Your task to perform on an android device: open app "NewsBreak: Local News & Alerts" (install if not already installed) Image 0: 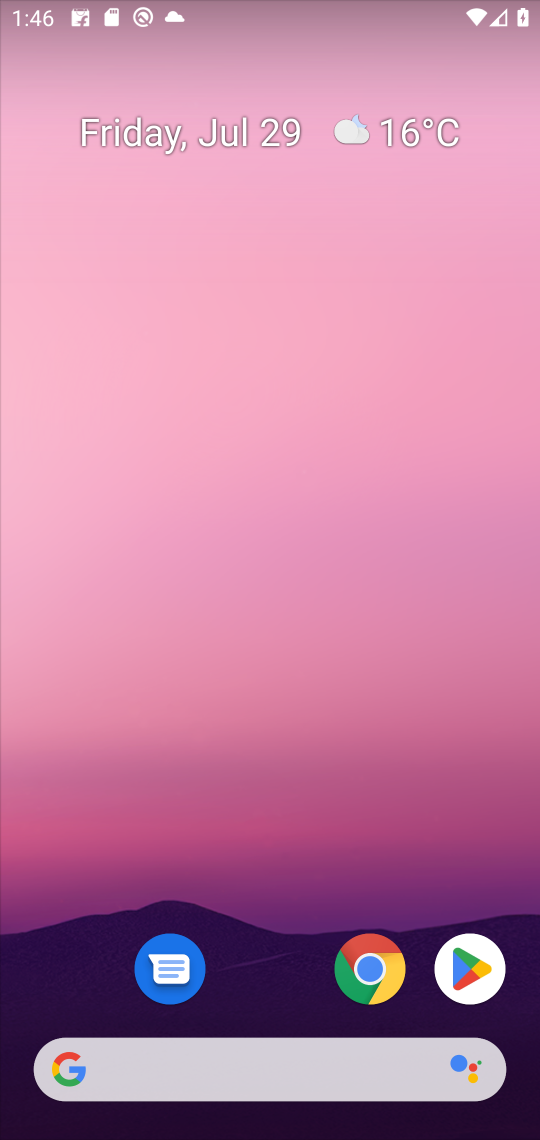
Step 0: press home button
Your task to perform on an android device: open app "NewsBreak: Local News & Alerts" (install if not already installed) Image 1: 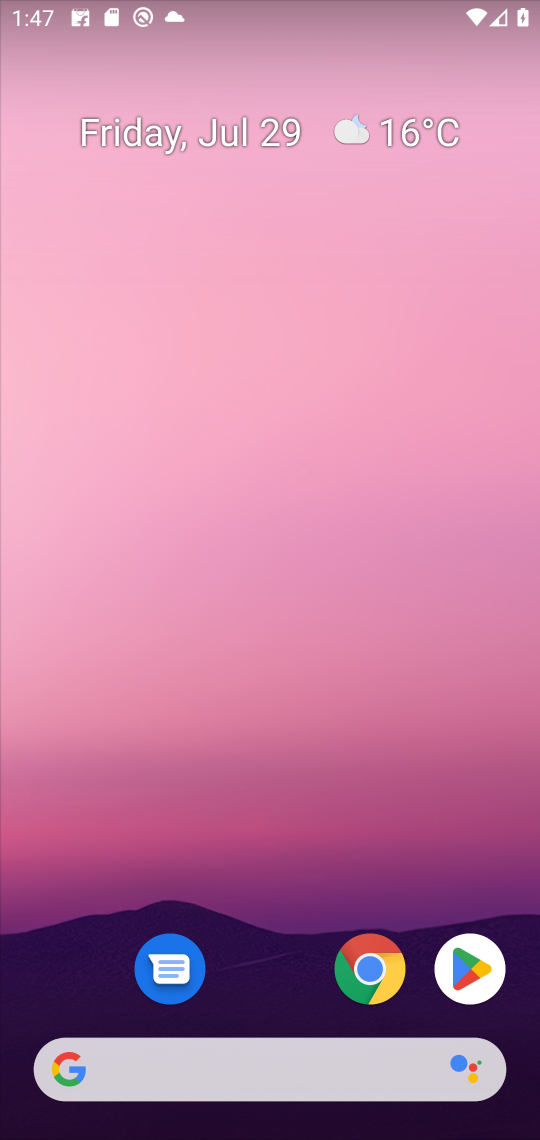
Step 1: click (462, 969)
Your task to perform on an android device: open app "NewsBreak: Local News & Alerts" (install if not already installed) Image 2: 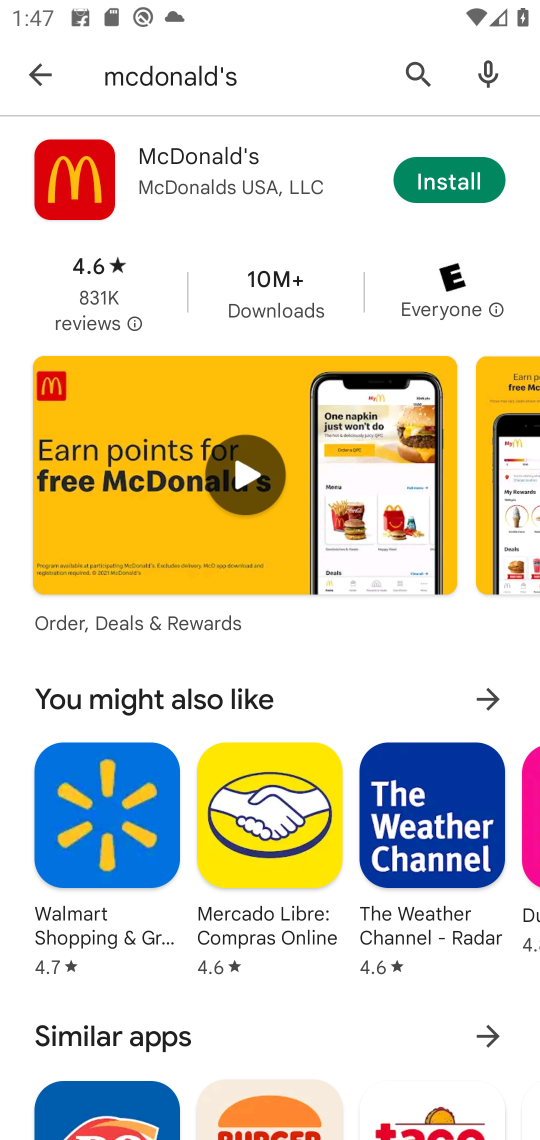
Step 2: click (411, 73)
Your task to perform on an android device: open app "NewsBreak: Local News & Alerts" (install if not already installed) Image 3: 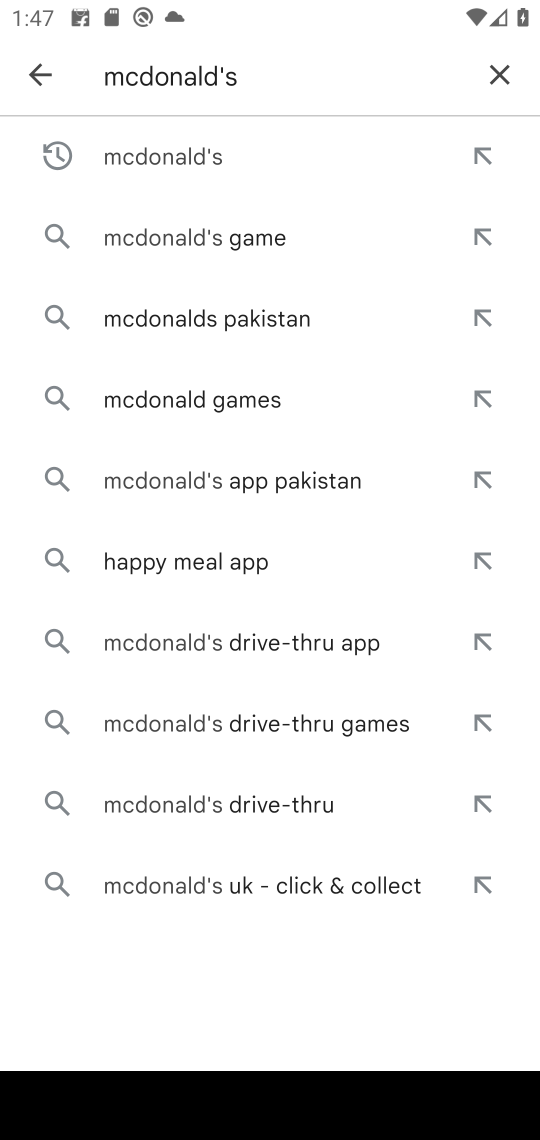
Step 3: click (493, 81)
Your task to perform on an android device: open app "NewsBreak: Local News & Alerts" (install if not already installed) Image 4: 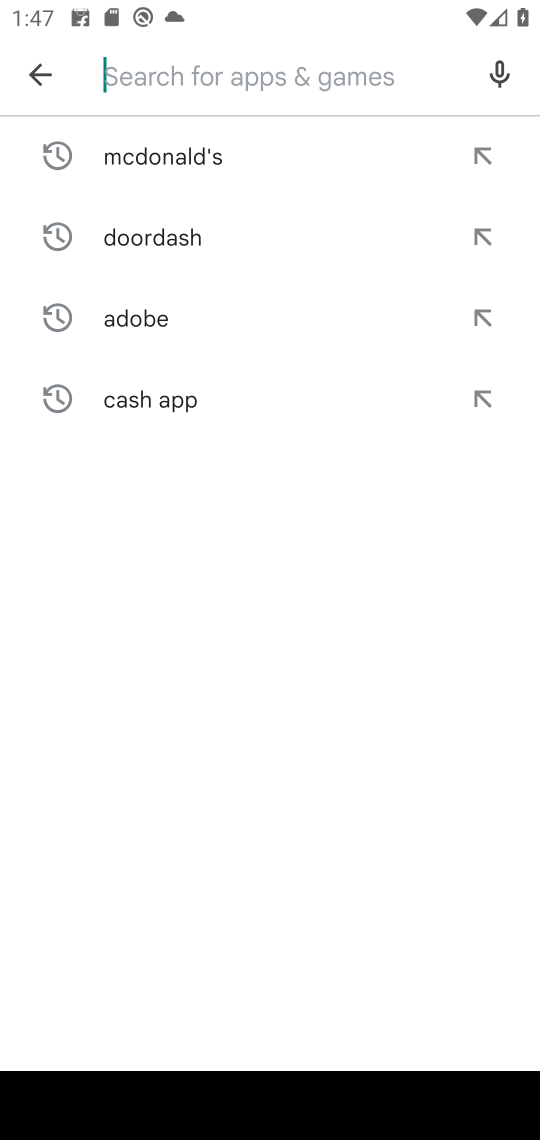
Step 4: type "newsbreak"
Your task to perform on an android device: open app "NewsBreak: Local News & Alerts" (install if not already installed) Image 5: 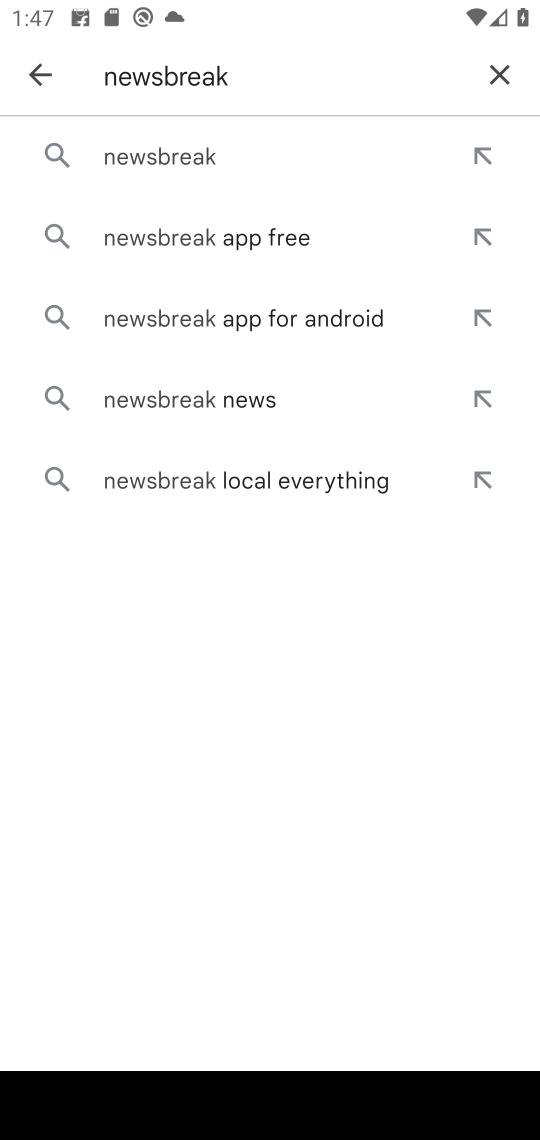
Step 5: click (211, 158)
Your task to perform on an android device: open app "NewsBreak: Local News & Alerts" (install if not already installed) Image 6: 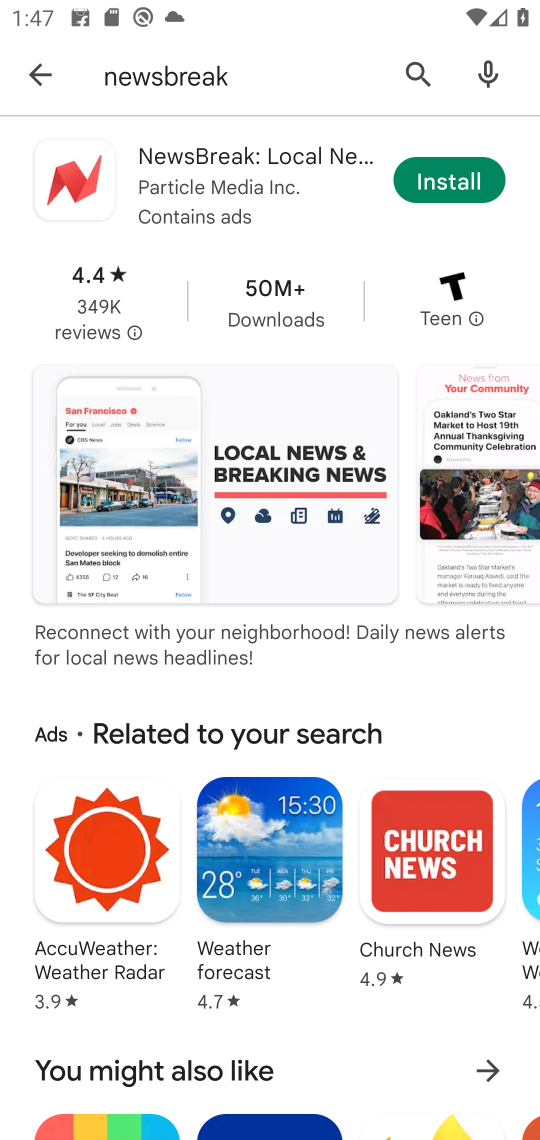
Step 6: click (409, 191)
Your task to perform on an android device: open app "NewsBreak: Local News & Alerts" (install if not already installed) Image 7: 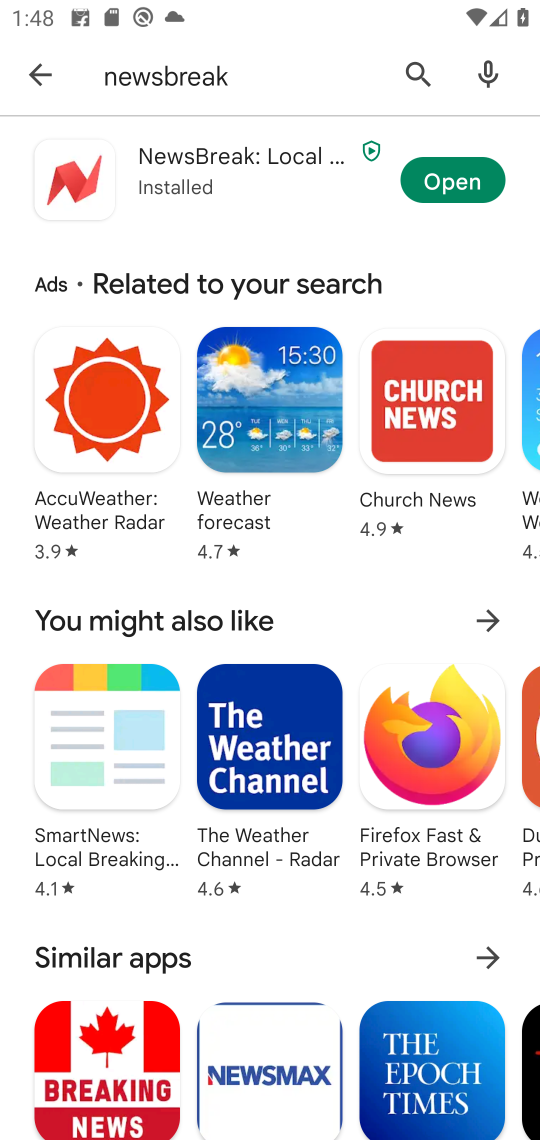
Step 7: click (442, 177)
Your task to perform on an android device: open app "NewsBreak: Local News & Alerts" (install if not already installed) Image 8: 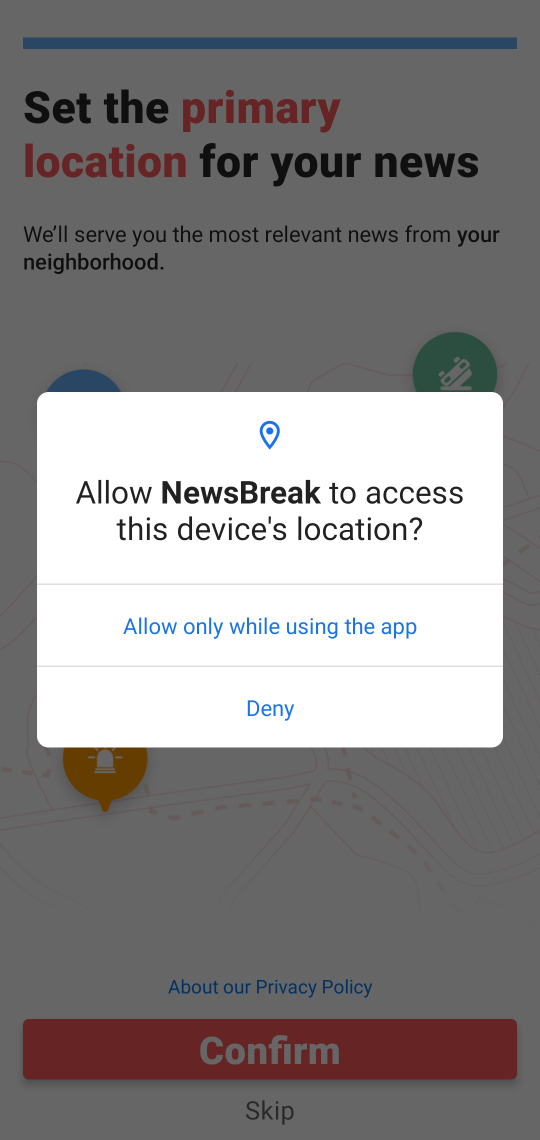
Step 8: click (173, 625)
Your task to perform on an android device: open app "NewsBreak: Local News & Alerts" (install if not already installed) Image 9: 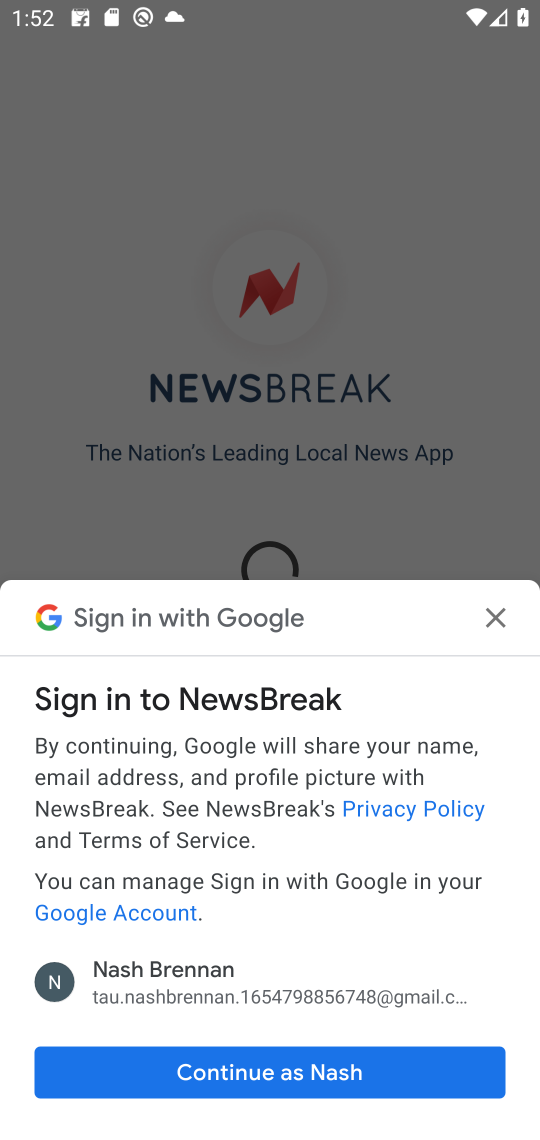
Step 9: task complete